Your task to perform on an android device: stop showing notifications on the lock screen Image 0: 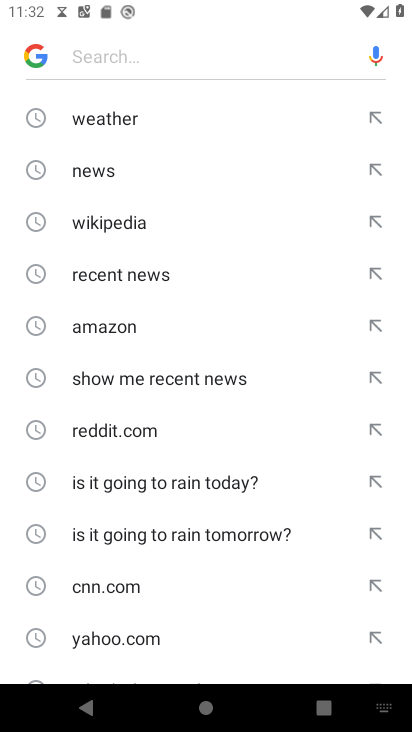
Step 0: press home button
Your task to perform on an android device: stop showing notifications on the lock screen Image 1: 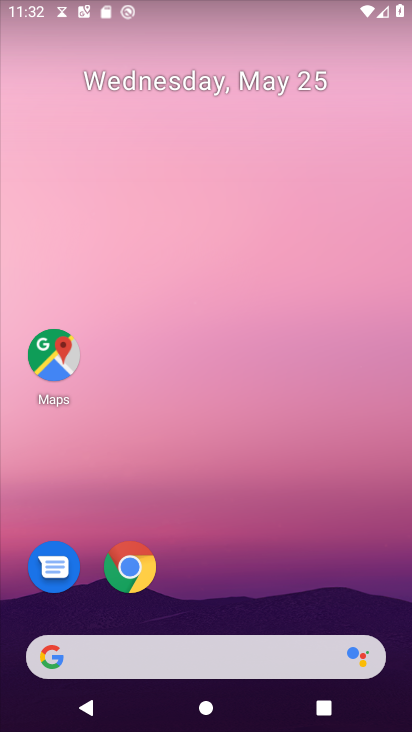
Step 1: drag from (293, 518) to (264, 61)
Your task to perform on an android device: stop showing notifications on the lock screen Image 2: 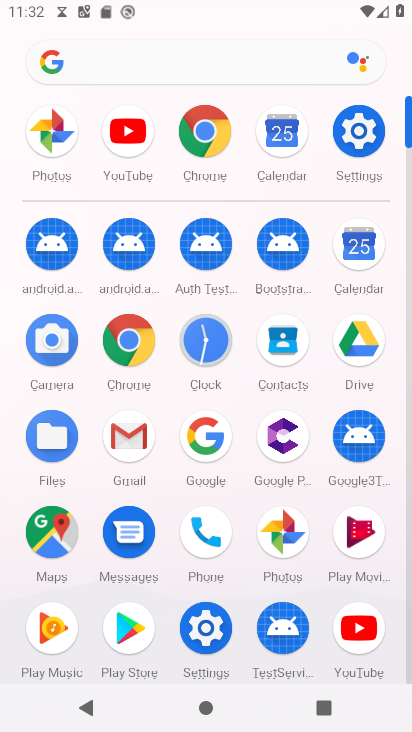
Step 2: click (355, 143)
Your task to perform on an android device: stop showing notifications on the lock screen Image 3: 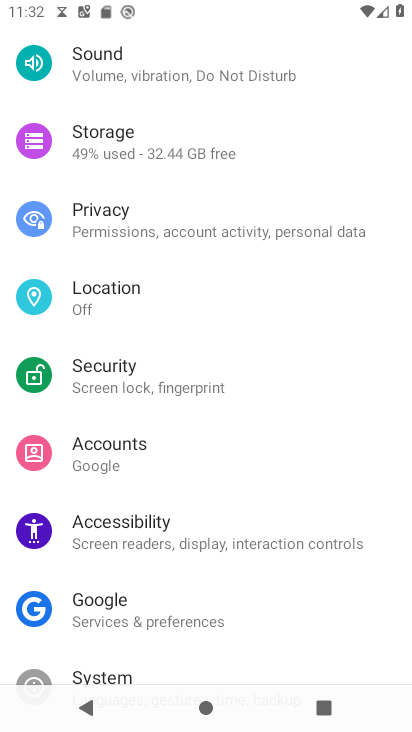
Step 3: drag from (219, 296) to (218, 645)
Your task to perform on an android device: stop showing notifications on the lock screen Image 4: 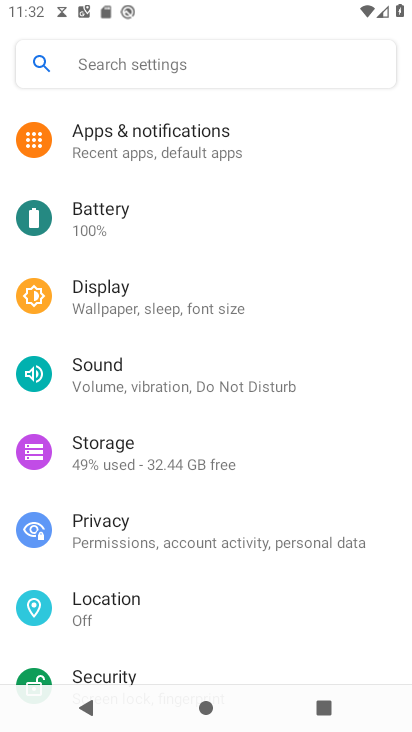
Step 4: click (98, 321)
Your task to perform on an android device: stop showing notifications on the lock screen Image 5: 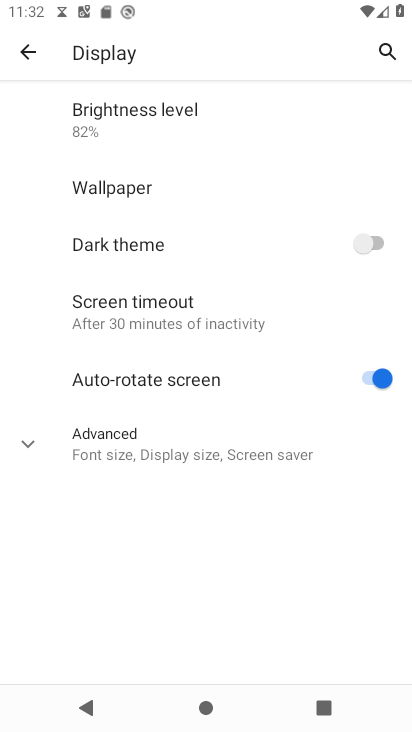
Step 5: press back button
Your task to perform on an android device: stop showing notifications on the lock screen Image 6: 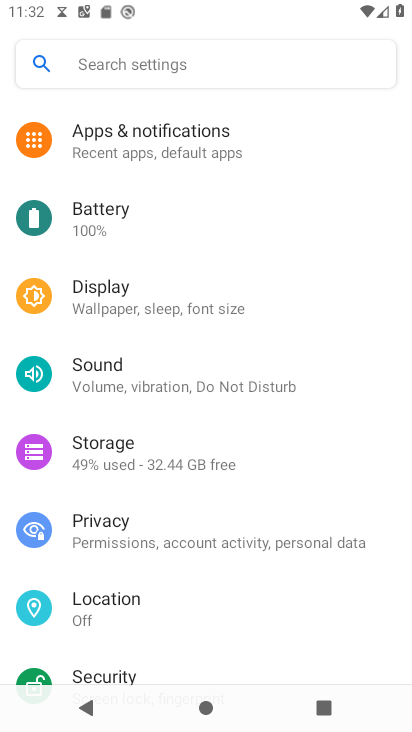
Step 6: drag from (184, 617) to (181, 281)
Your task to perform on an android device: stop showing notifications on the lock screen Image 7: 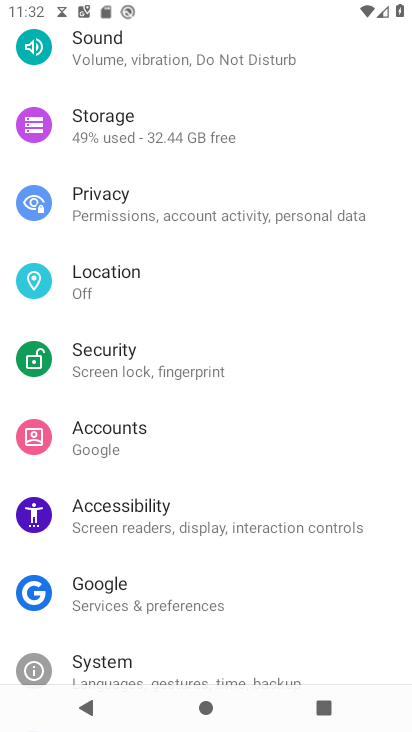
Step 7: drag from (143, 655) to (179, 292)
Your task to perform on an android device: stop showing notifications on the lock screen Image 8: 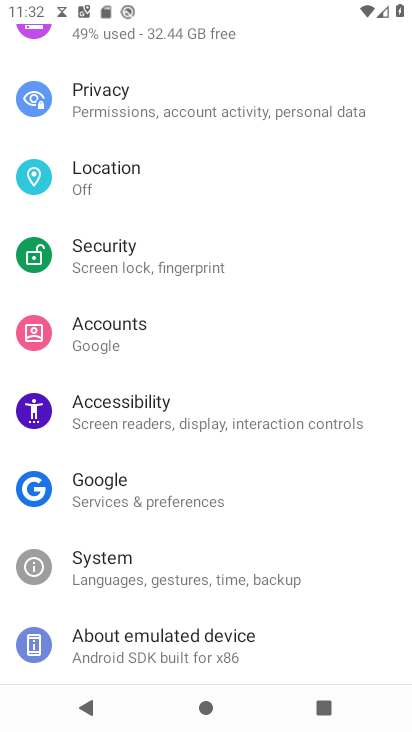
Step 8: click (118, 649)
Your task to perform on an android device: stop showing notifications on the lock screen Image 9: 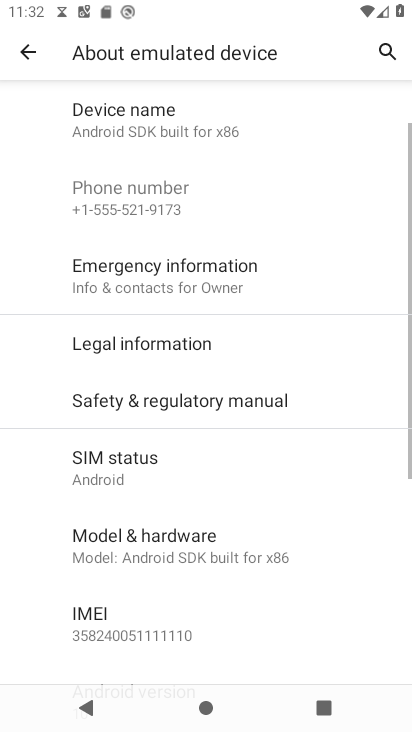
Step 9: drag from (211, 588) to (235, 276)
Your task to perform on an android device: stop showing notifications on the lock screen Image 10: 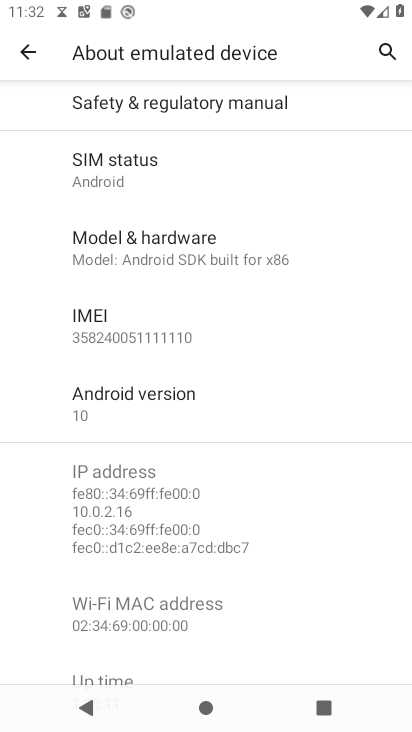
Step 10: drag from (239, 488) to (244, 210)
Your task to perform on an android device: stop showing notifications on the lock screen Image 11: 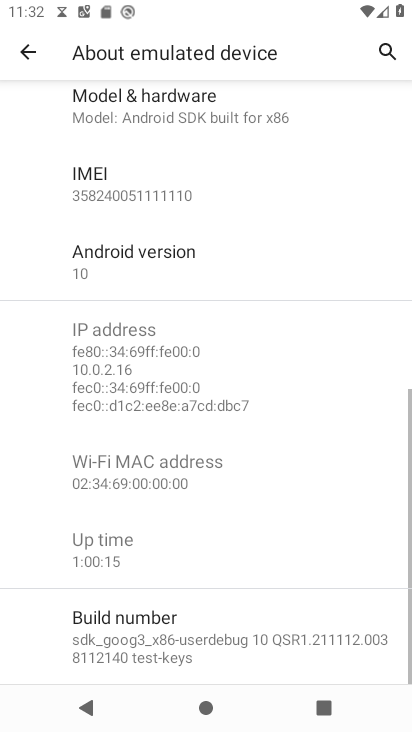
Step 11: press back button
Your task to perform on an android device: stop showing notifications on the lock screen Image 12: 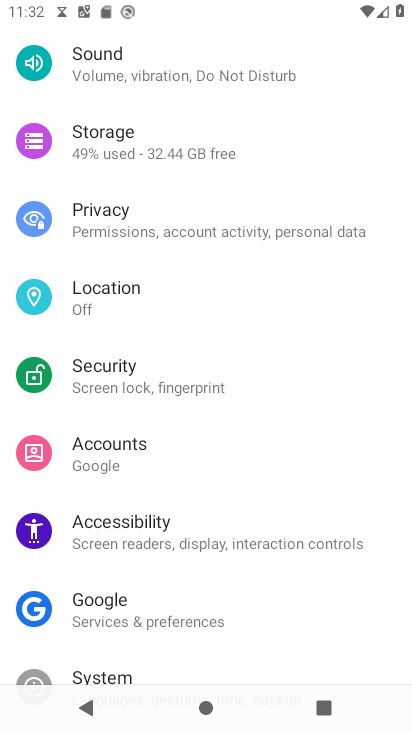
Step 12: drag from (205, 254) to (198, 614)
Your task to perform on an android device: stop showing notifications on the lock screen Image 13: 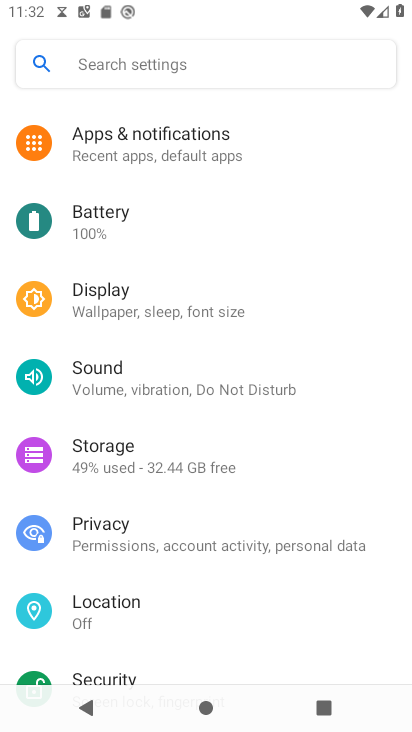
Step 13: drag from (220, 127) to (213, 451)
Your task to perform on an android device: stop showing notifications on the lock screen Image 14: 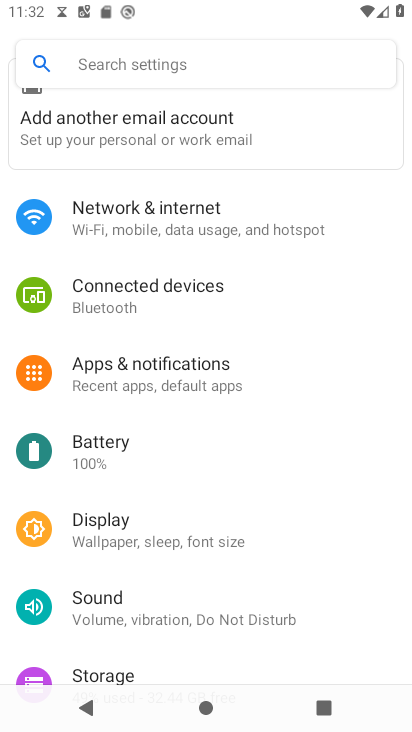
Step 14: drag from (223, 504) to (228, 174)
Your task to perform on an android device: stop showing notifications on the lock screen Image 15: 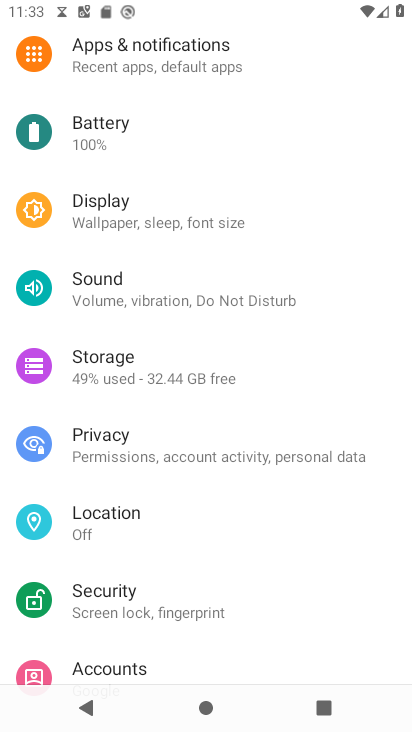
Step 15: click (232, 216)
Your task to perform on an android device: stop showing notifications on the lock screen Image 16: 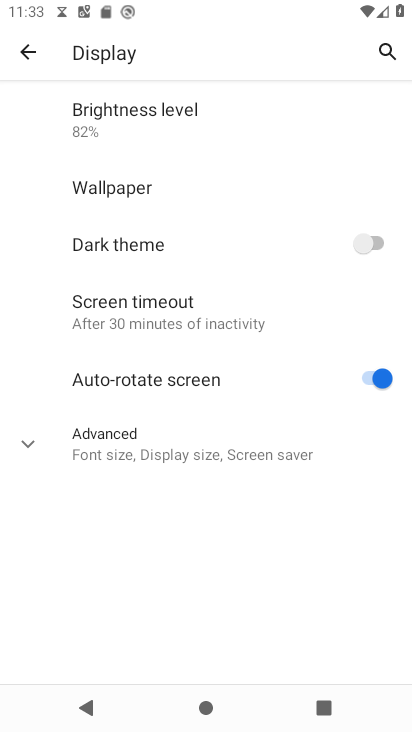
Step 16: click (167, 458)
Your task to perform on an android device: stop showing notifications on the lock screen Image 17: 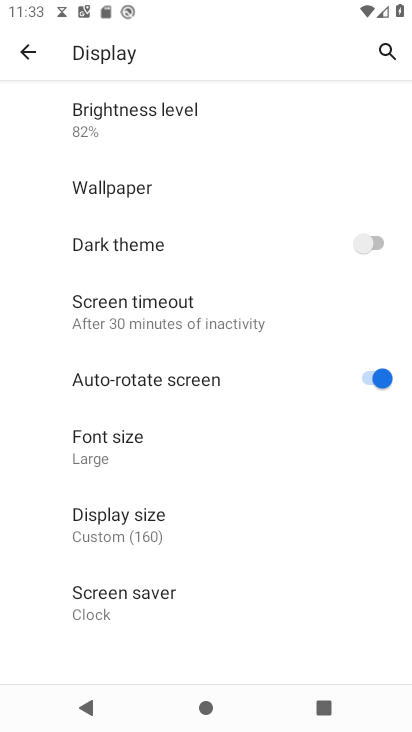
Step 17: drag from (171, 576) to (190, 156)
Your task to perform on an android device: stop showing notifications on the lock screen Image 18: 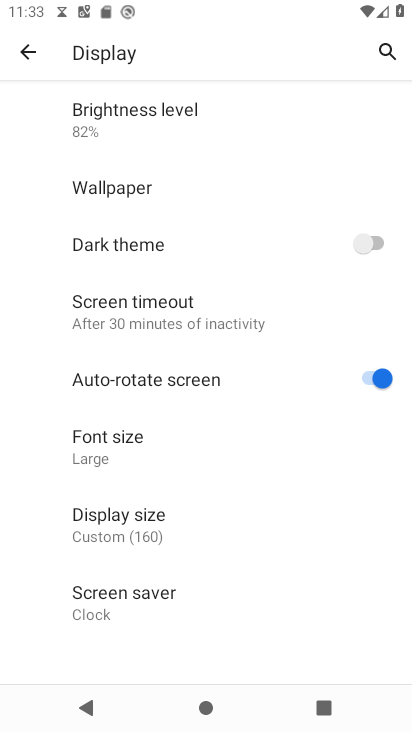
Step 18: press back button
Your task to perform on an android device: stop showing notifications on the lock screen Image 19: 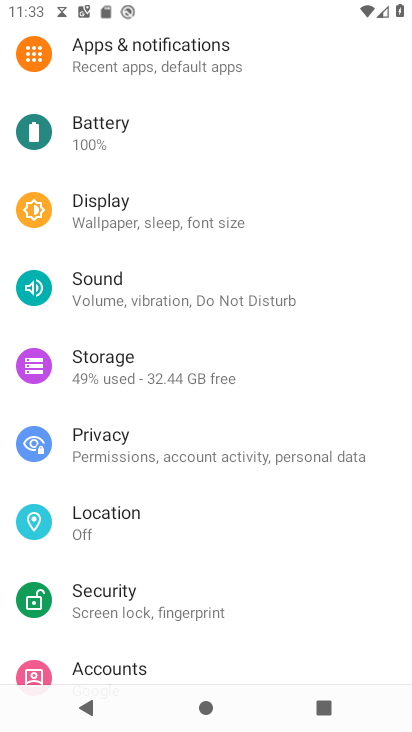
Step 19: click (164, 64)
Your task to perform on an android device: stop showing notifications on the lock screen Image 20: 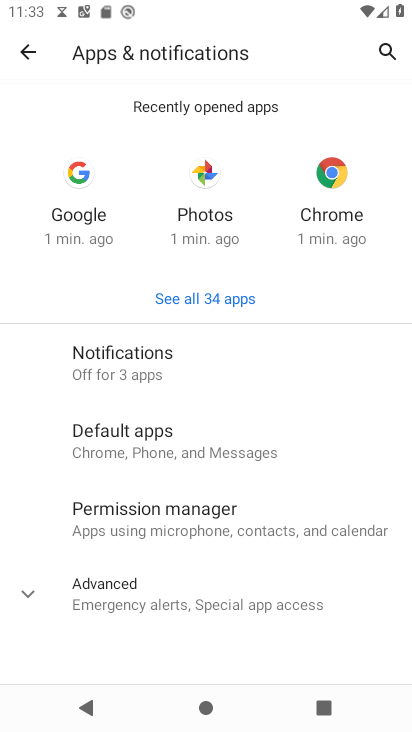
Step 20: click (163, 596)
Your task to perform on an android device: stop showing notifications on the lock screen Image 21: 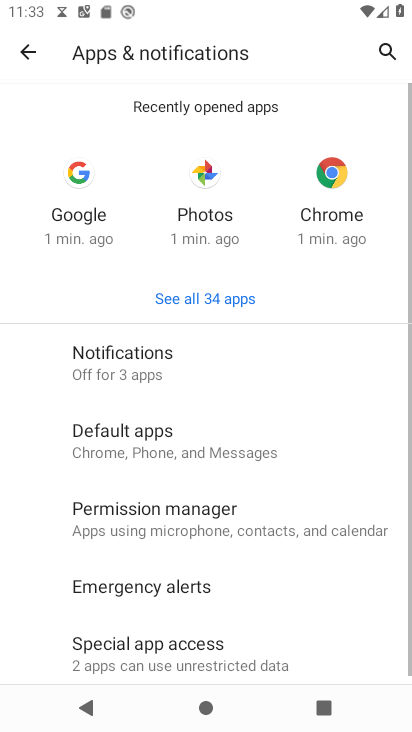
Step 21: drag from (149, 561) to (177, 261)
Your task to perform on an android device: stop showing notifications on the lock screen Image 22: 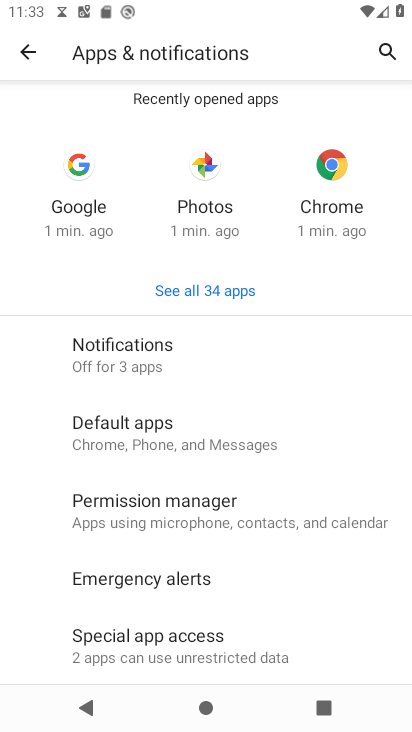
Step 22: click (226, 363)
Your task to perform on an android device: stop showing notifications on the lock screen Image 23: 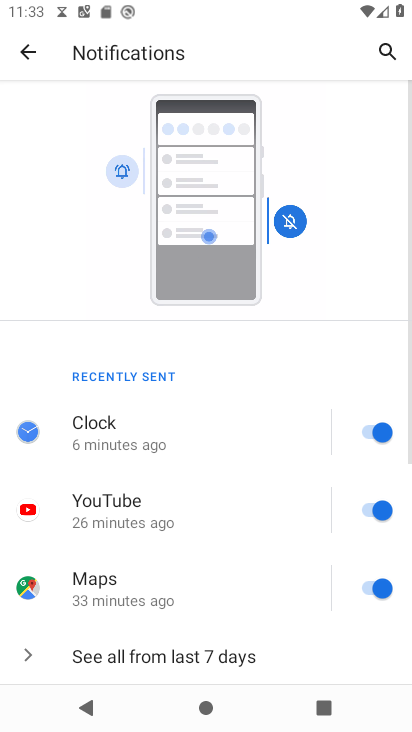
Step 23: drag from (225, 540) to (296, 27)
Your task to perform on an android device: stop showing notifications on the lock screen Image 24: 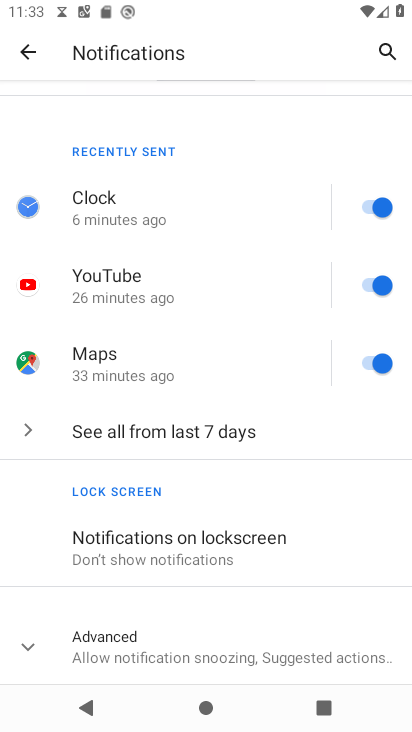
Step 24: click (289, 552)
Your task to perform on an android device: stop showing notifications on the lock screen Image 25: 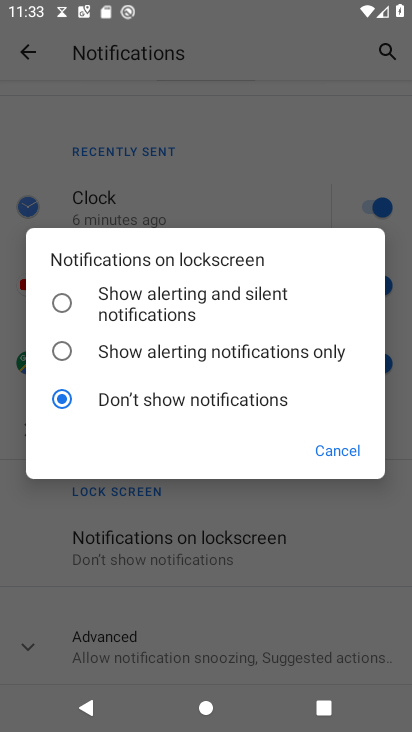
Step 25: task complete